Your task to perform on an android device: Open Android settings Image 0: 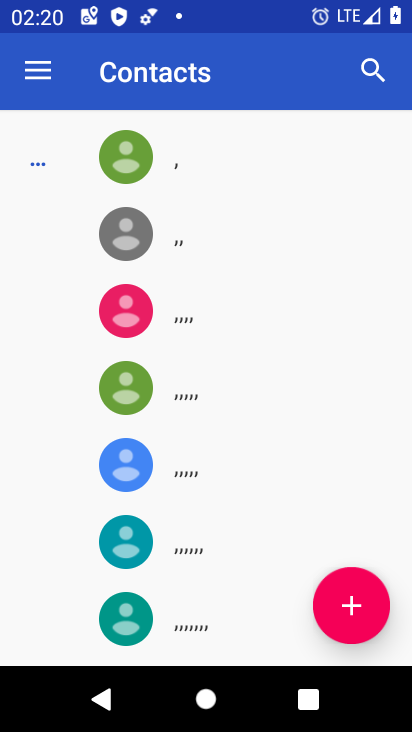
Step 0: press home button
Your task to perform on an android device: Open Android settings Image 1: 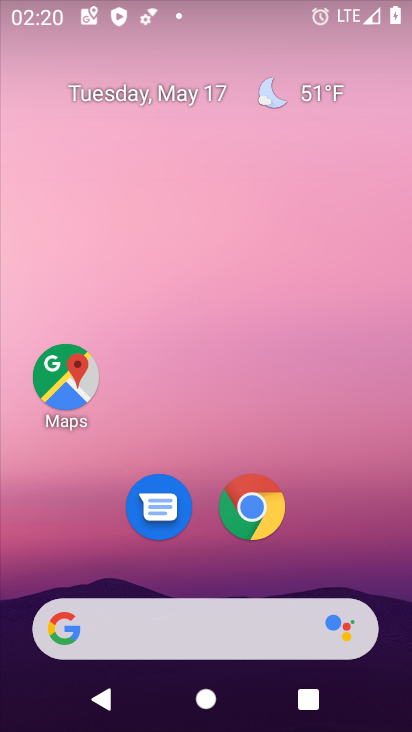
Step 1: drag from (205, 567) to (204, 62)
Your task to perform on an android device: Open Android settings Image 2: 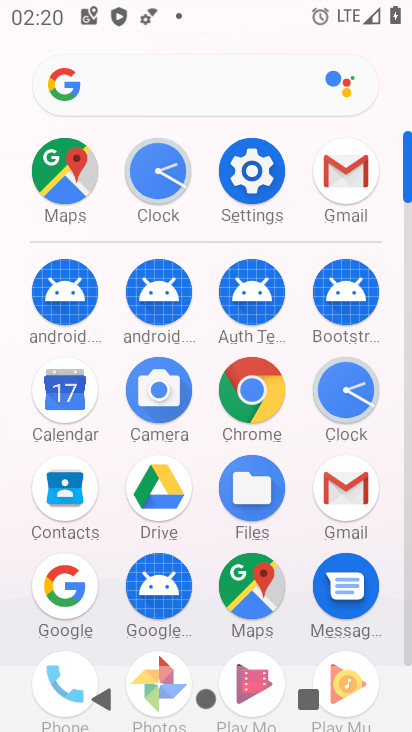
Step 2: click (260, 156)
Your task to perform on an android device: Open Android settings Image 3: 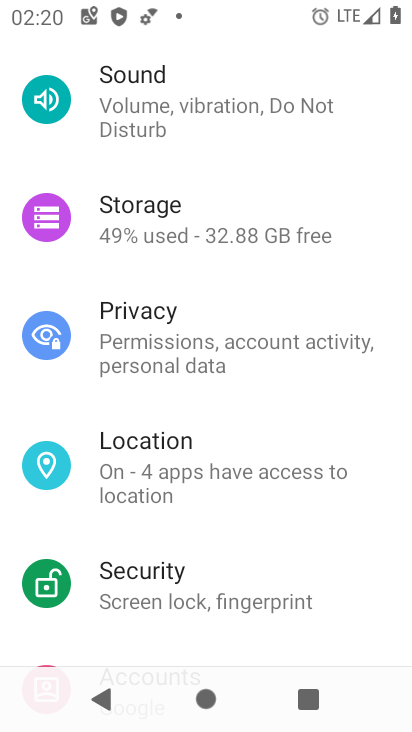
Step 3: drag from (231, 546) to (282, 206)
Your task to perform on an android device: Open Android settings Image 4: 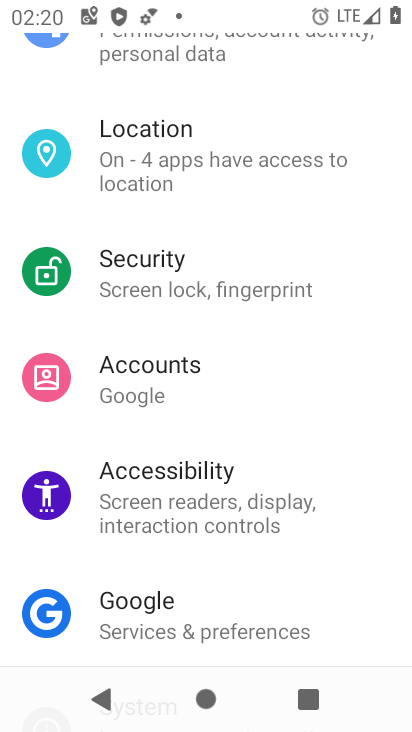
Step 4: drag from (204, 574) to (203, 208)
Your task to perform on an android device: Open Android settings Image 5: 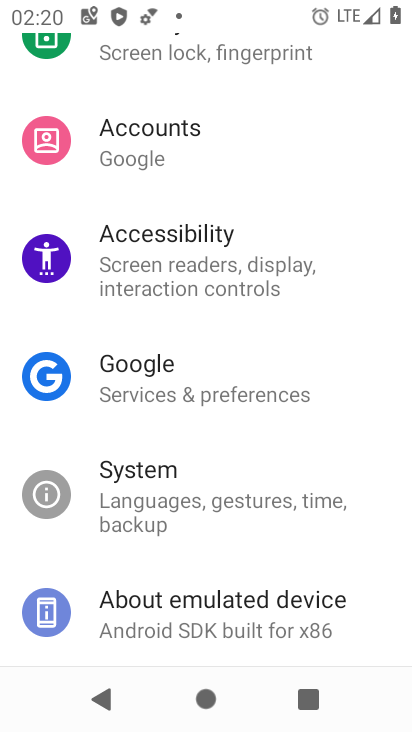
Step 5: click (168, 512)
Your task to perform on an android device: Open Android settings Image 6: 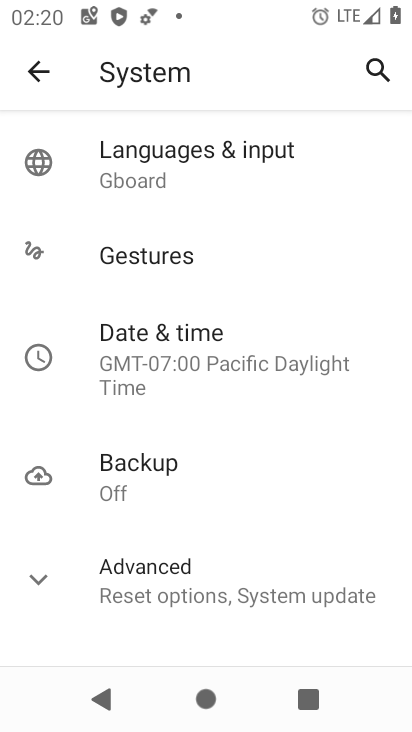
Step 6: task complete